Your task to perform on an android device: open chrome privacy settings Image 0: 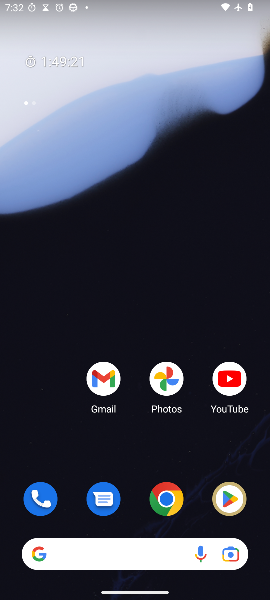
Step 0: drag from (120, 475) to (167, 57)
Your task to perform on an android device: open chrome privacy settings Image 1: 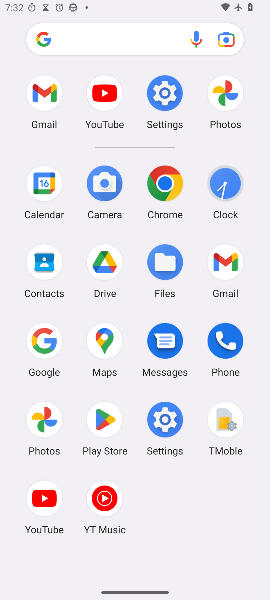
Step 1: click (161, 100)
Your task to perform on an android device: open chrome privacy settings Image 2: 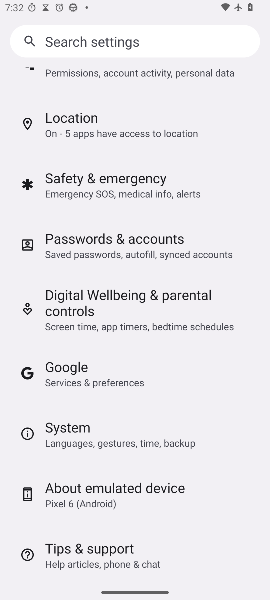
Step 2: drag from (119, 507) to (160, 193)
Your task to perform on an android device: open chrome privacy settings Image 3: 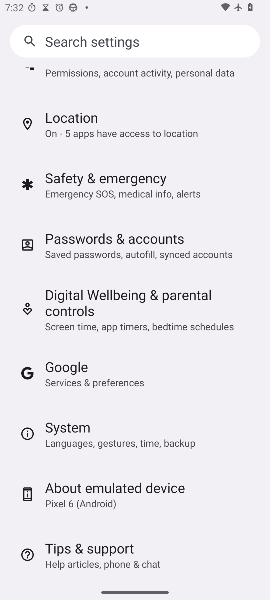
Step 3: drag from (157, 200) to (158, 515)
Your task to perform on an android device: open chrome privacy settings Image 4: 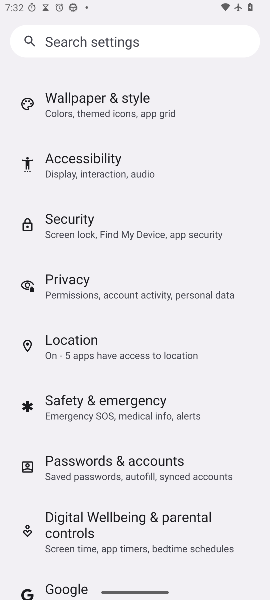
Step 4: drag from (142, 202) to (173, 493)
Your task to perform on an android device: open chrome privacy settings Image 5: 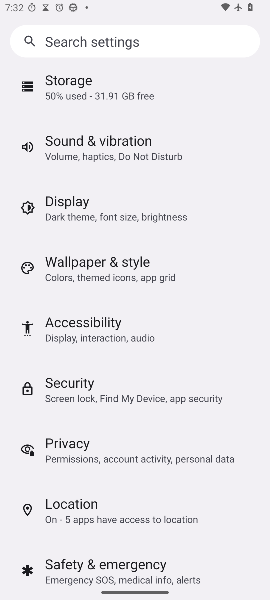
Step 5: click (93, 453)
Your task to perform on an android device: open chrome privacy settings Image 6: 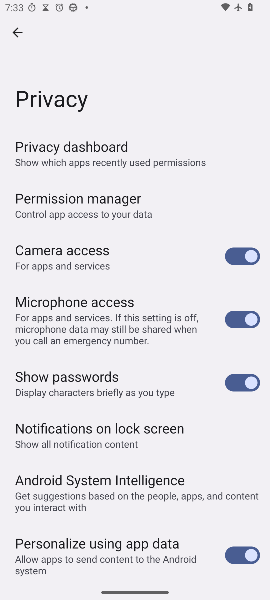
Step 6: task complete